Your task to perform on an android device: Open sound settings Image 0: 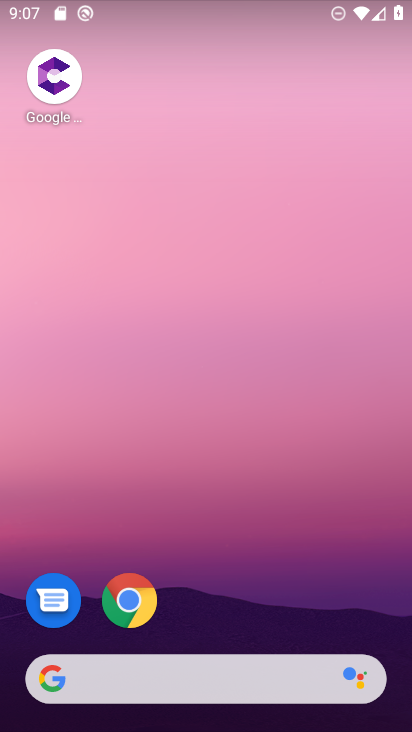
Step 0: drag from (229, 651) to (229, 326)
Your task to perform on an android device: Open sound settings Image 1: 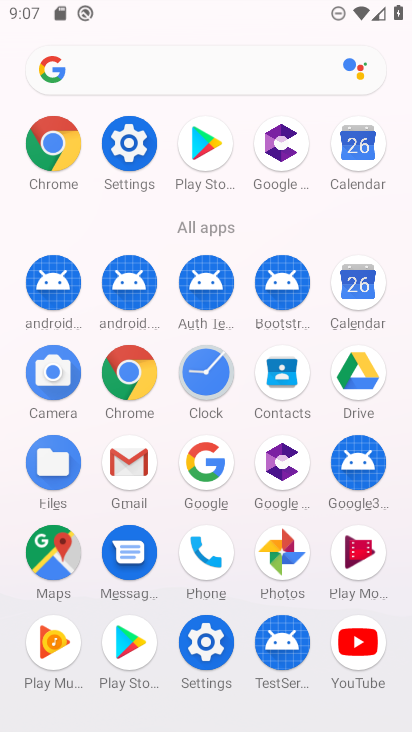
Step 1: click (129, 144)
Your task to perform on an android device: Open sound settings Image 2: 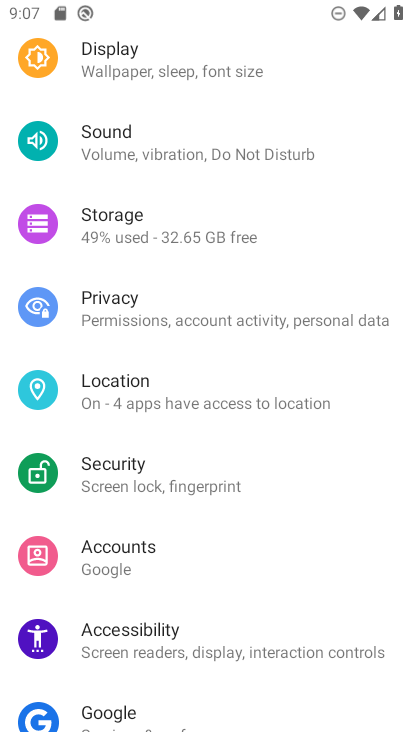
Step 2: click (110, 145)
Your task to perform on an android device: Open sound settings Image 3: 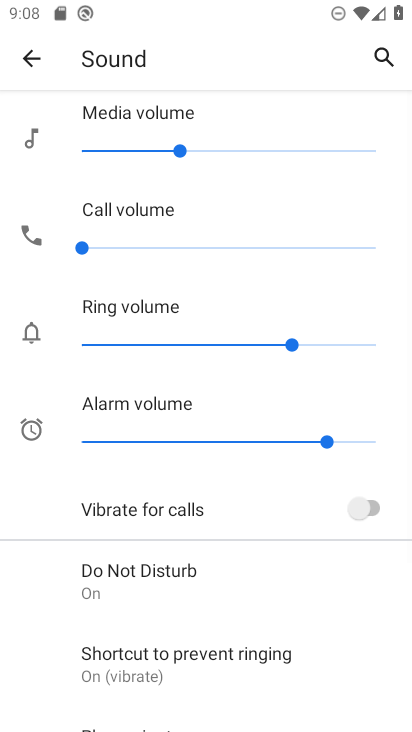
Step 3: task complete